Your task to perform on an android device: Clear the shopping cart on bestbuy.com. Add logitech g910 to the cart on bestbuy.com, then select checkout. Image 0: 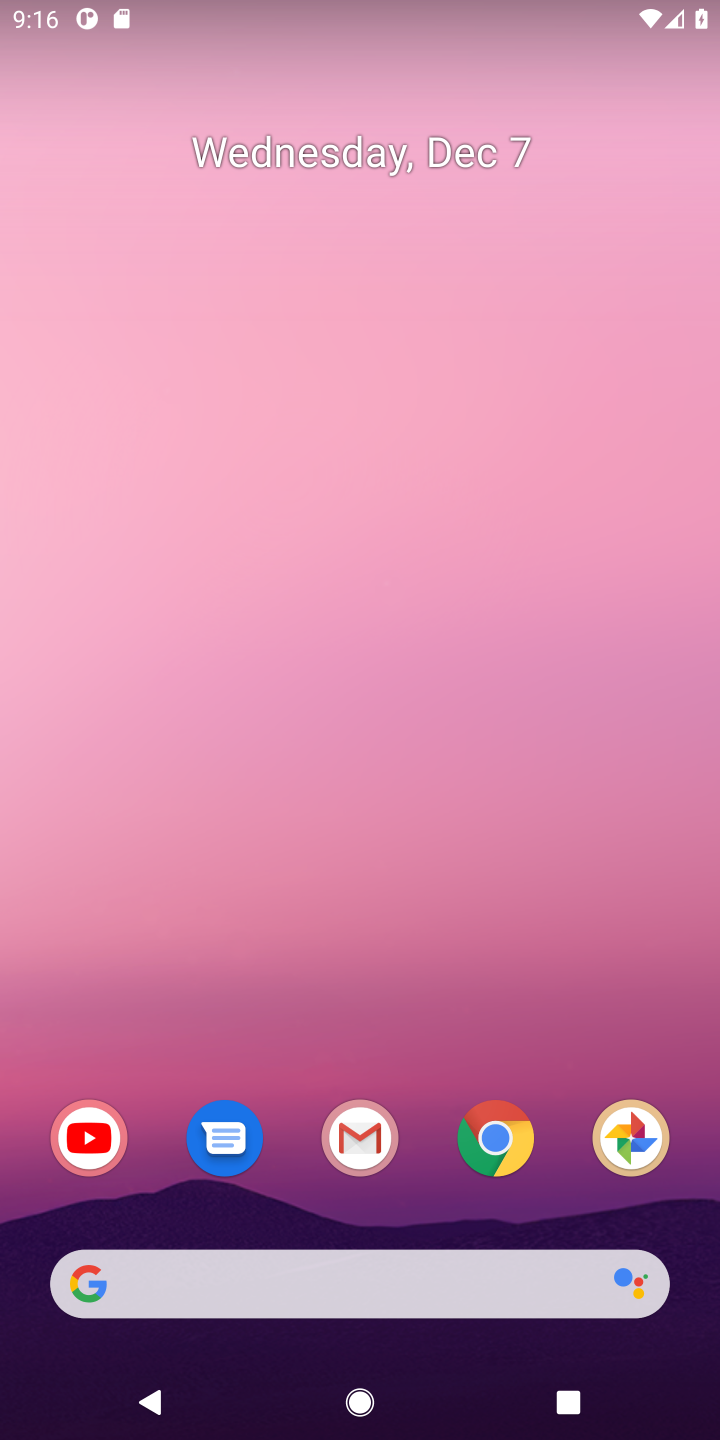
Step 0: press home button
Your task to perform on an android device: Clear the shopping cart on bestbuy.com. Add logitech g910 to the cart on bestbuy.com, then select checkout. Image 1: 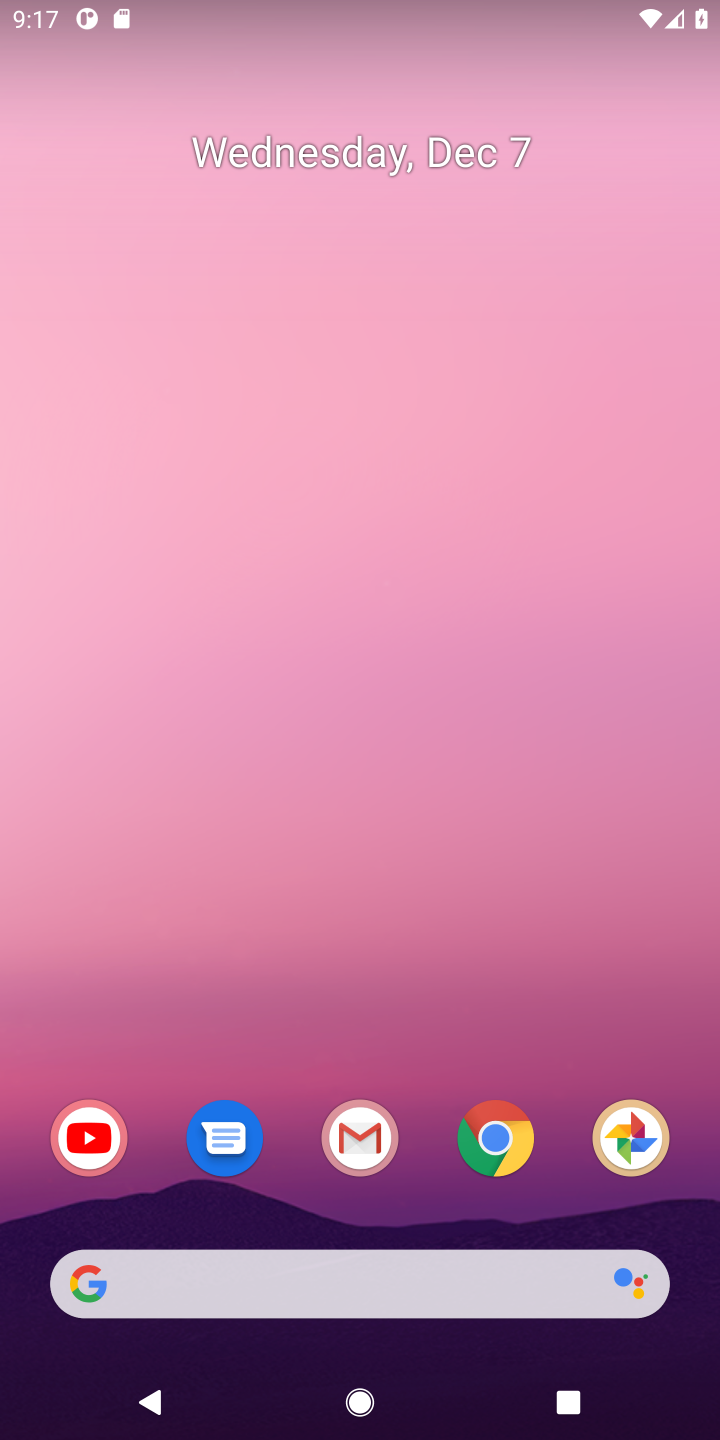
Step 1: click (139, 1278)
Your task to perform on an android device: Clear the shopping cart on bestbuy.com. Add logitech g910 to the cart on bestbuy.com, then select checkout. Image 2: 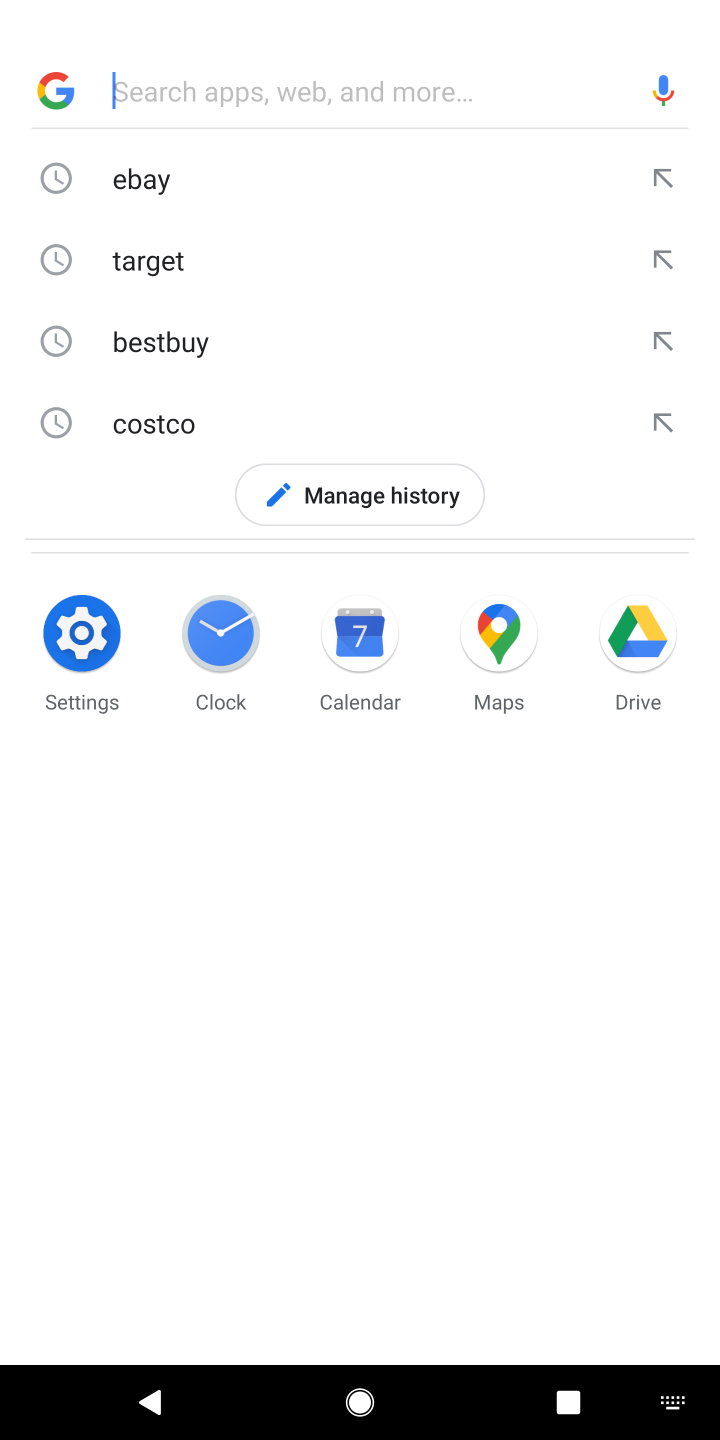
Step 2: type "bestbuy.com"
Your task to perform on an android device: Clear the shopping cart on bestbuy.com. Add logitech g910 to the cart on bestbuy.com, then select checkout. Image 3: 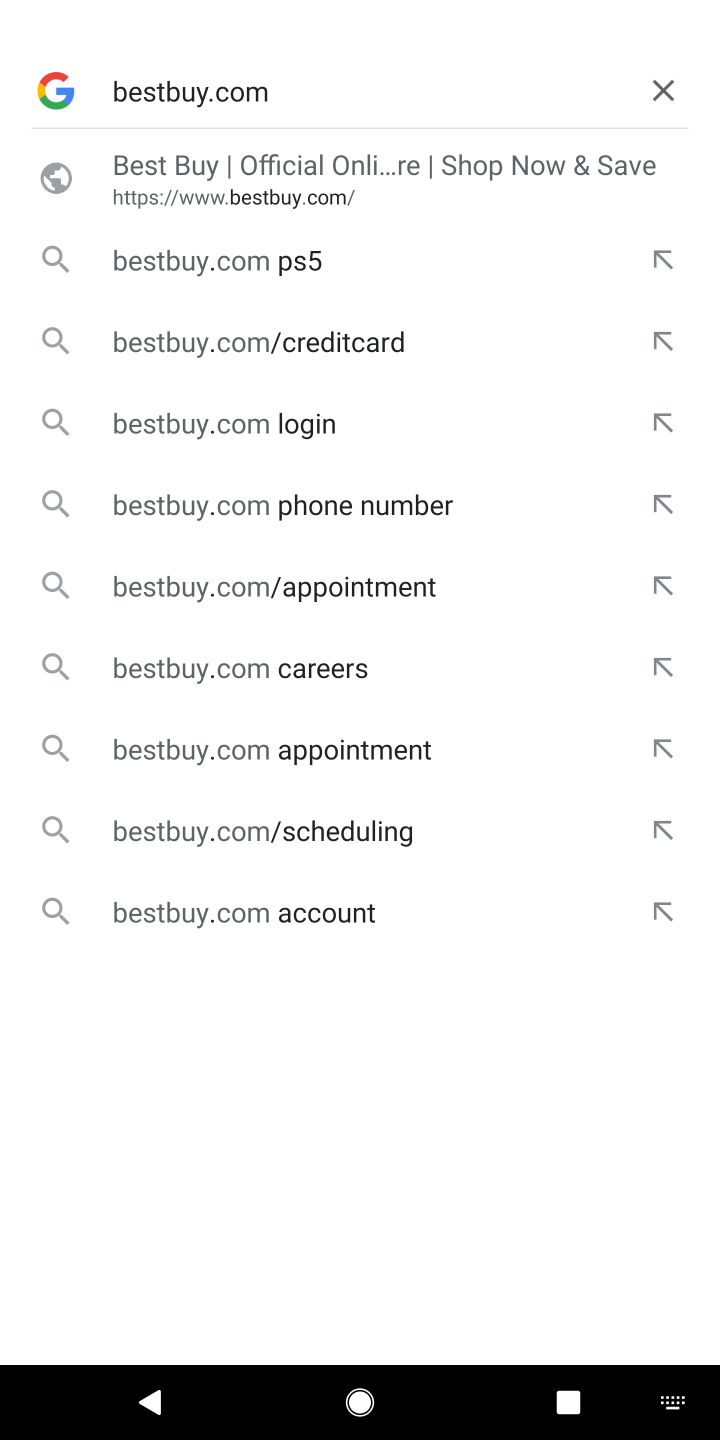
Step 3: press enter
Your task to perform on an android device: Clear the shopping cart on bestbuy.com. Add logitech g910 to the cart on bestbuy.com, then select checkout. Image 4: 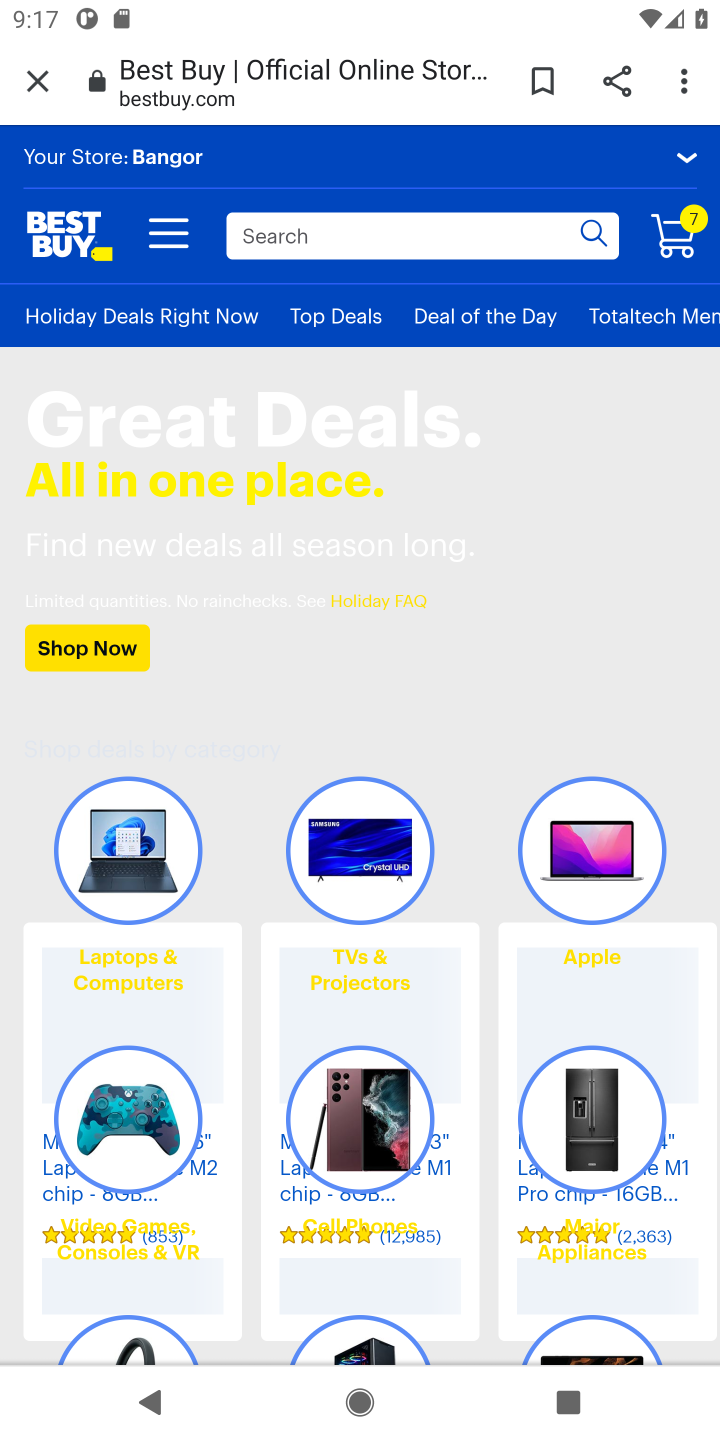
Step 4: click (677, 238)
Your task to perform on an android device: Clear the shopping cart on bestbuy.com. Add logitech g910 to the cart on bestbuy.com, then select checkout. Image 5: 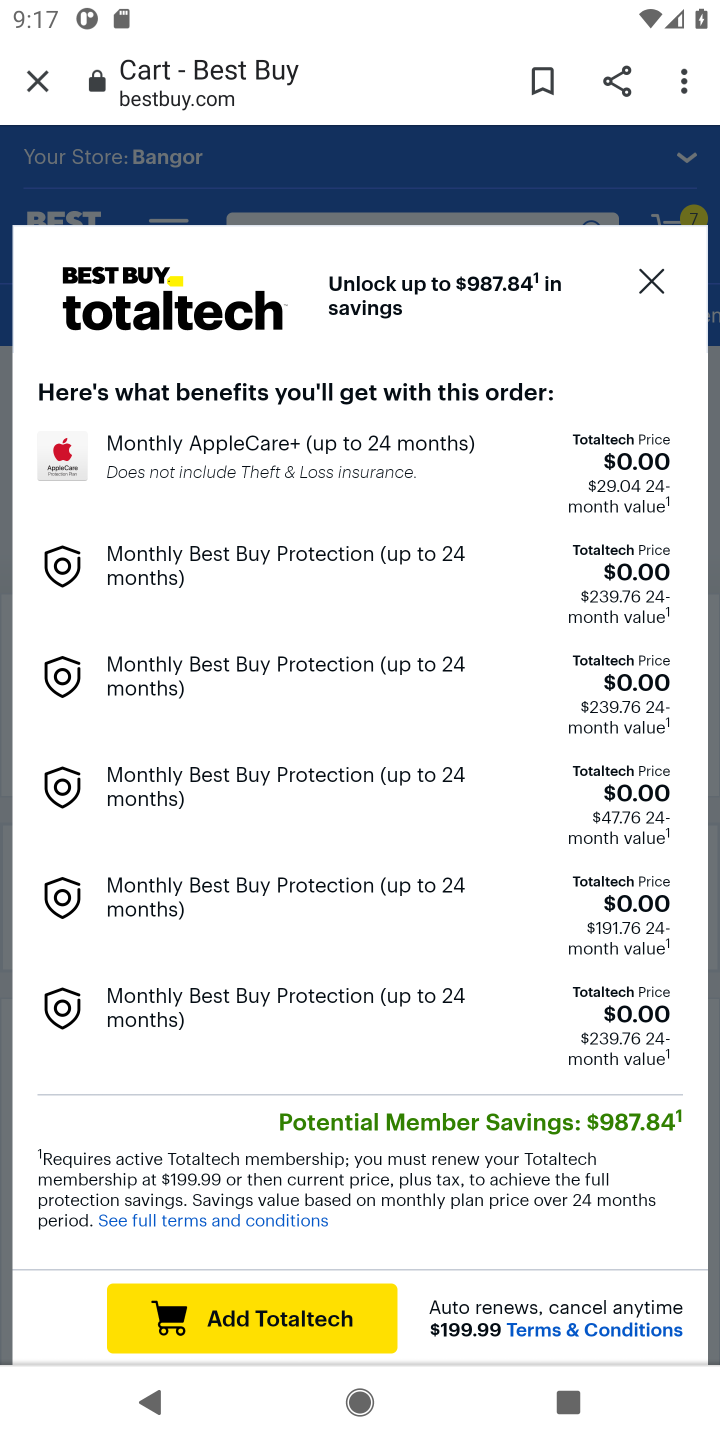
Step 5: click (644, 276)
Your task to perform on an android device: Clear the shopping cart on bestbuy.com. Add logitech g910 to the cart on bestbuy.com, then select checkout. Image 6: 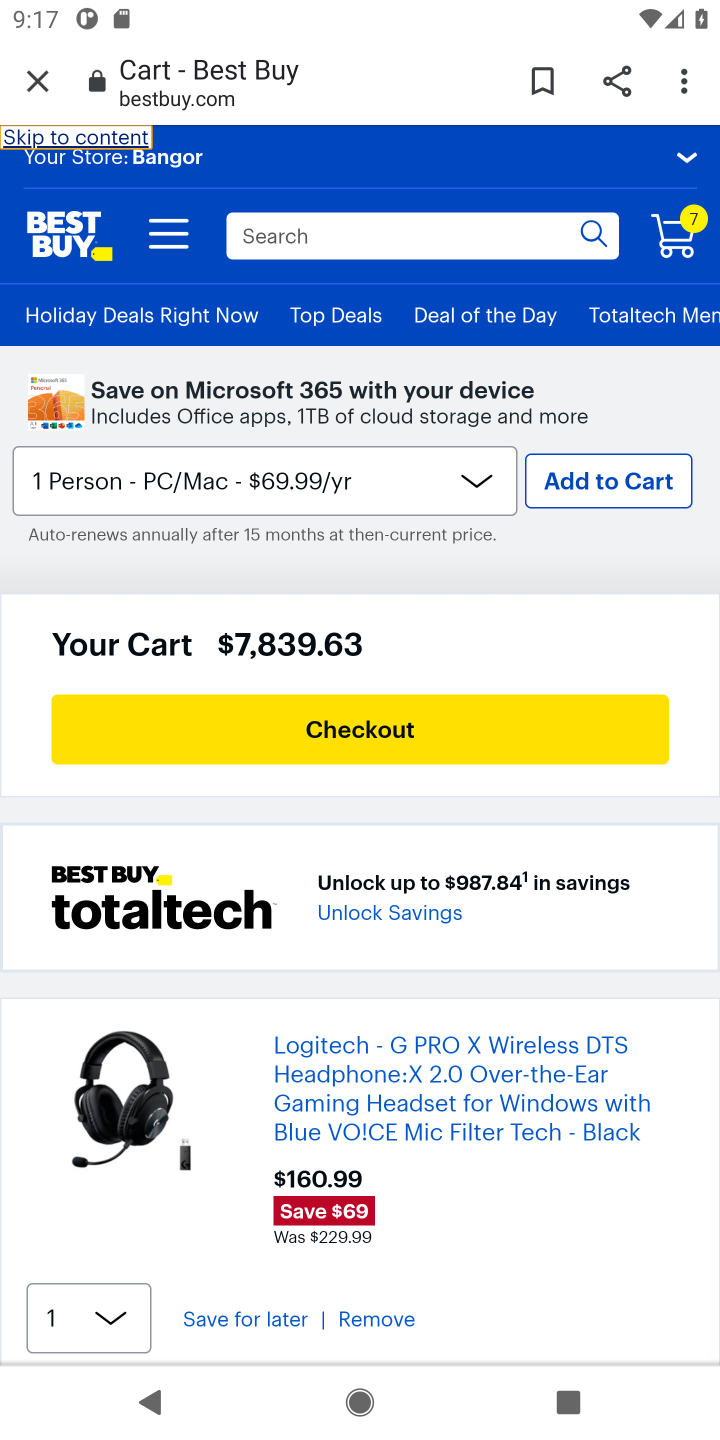
Step 6: click (369, 1311)
Your task to perform on an android device: Clear the shopping cart on bestbuy.com. Add logitech g910 to the cart on bestbuy.com, then select checkout. Image 7: 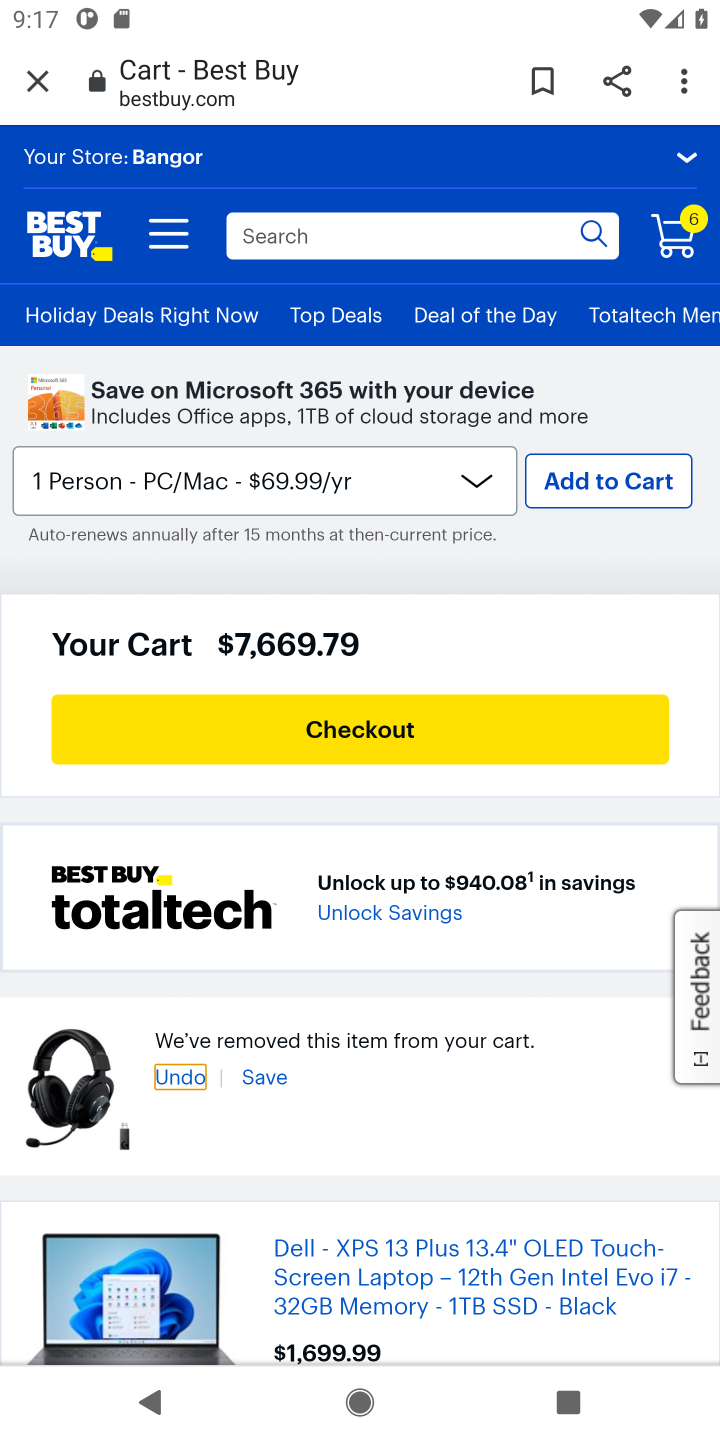
Step 7: drag from (383, 1161) to (474, 554)
Your task to perform on an android device: Clear the shopping cart on bestbuy.com. Add logitech g910 to the cart on bestbuy.com, then select checkout. Image 8: 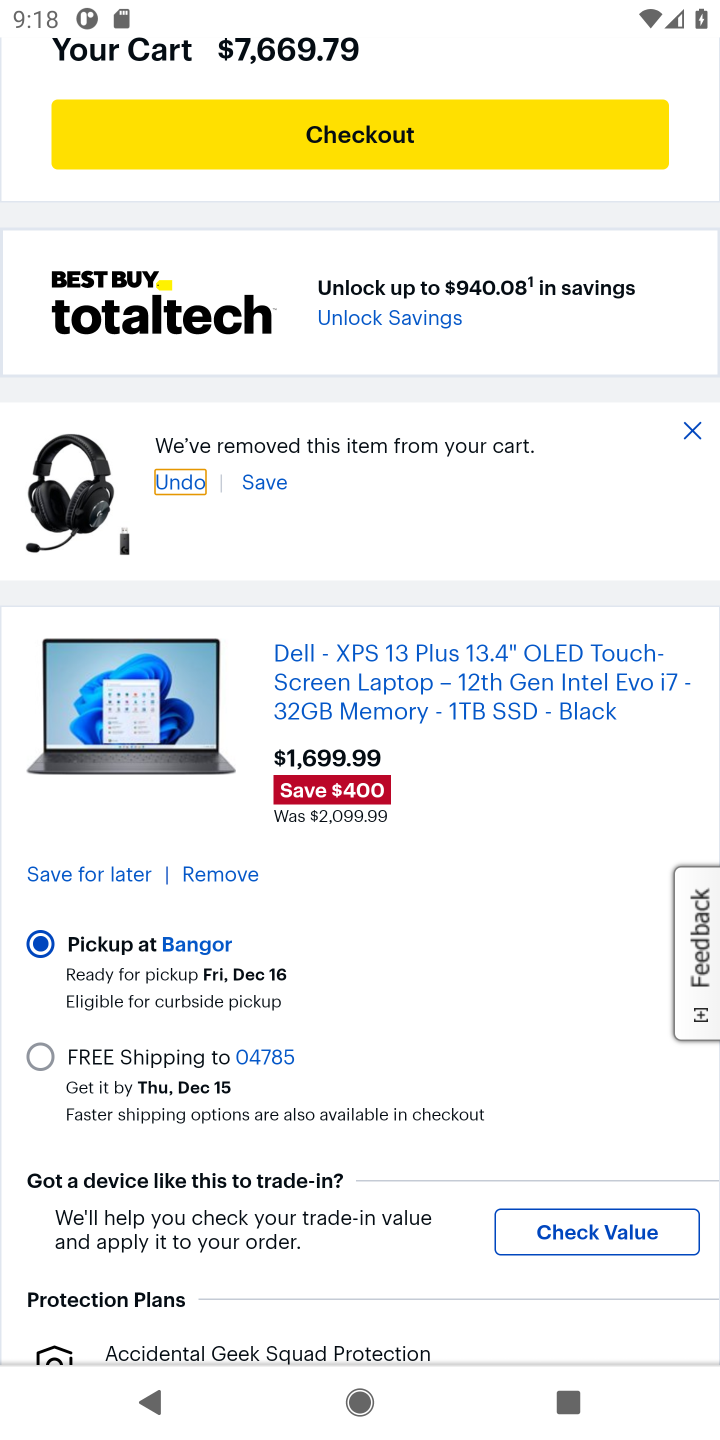
Step 8: drag from (330, 1205) to (419, 555)
Your task to perform on an android device: Clear the shopping cart on bestbuy.com. Add logitech g910 to the cart on bestbuy.com, then select checkout. Image 9: 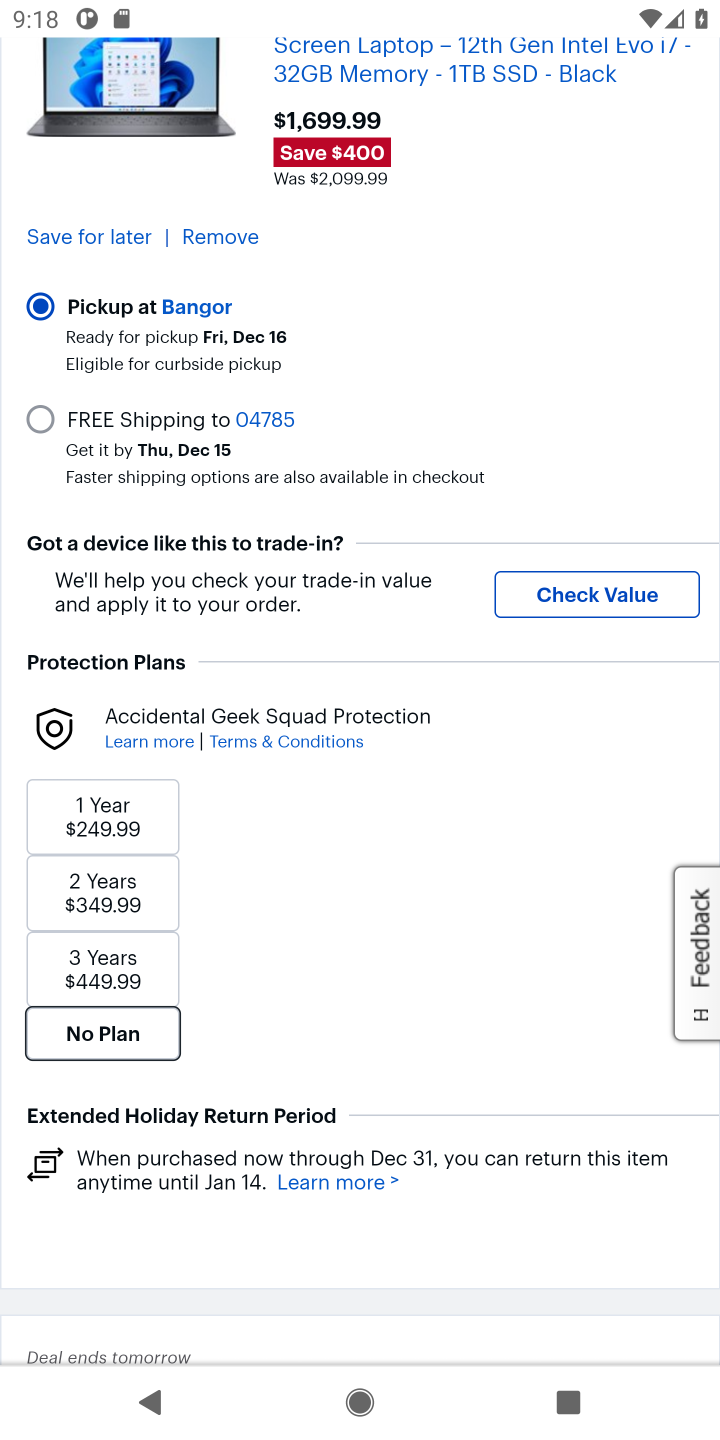
Step 9: drag from (338, 826) to (422, 245)
Your task to perform on an android device: Clear the shopping cart on bestbuy.com. Add logitech g910 to the cart on bestbuy.com, then select checkout. Image 10: 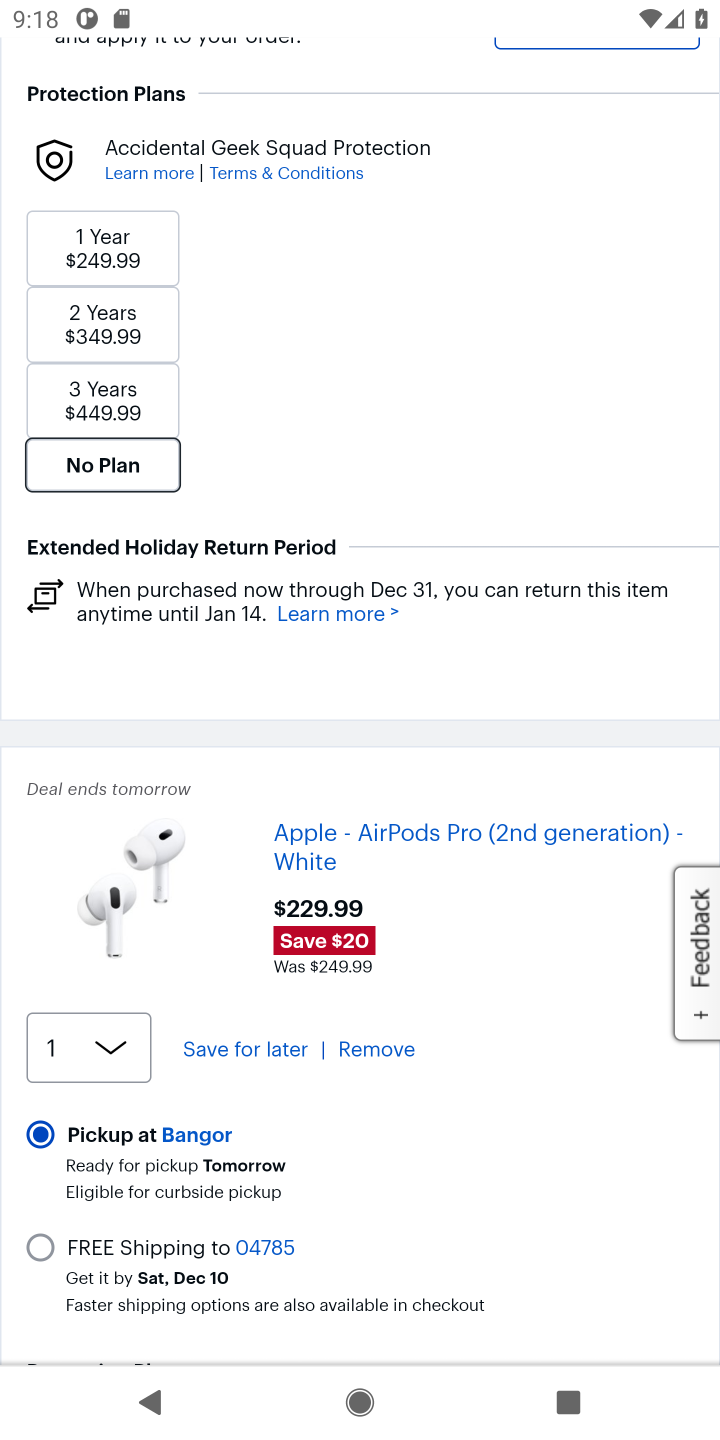
Step 10: click (368, 1042)
Your task to perform on an android device: Clear the shopping cart on bestbuy.com. Add logitech g910 to the cart on bestbuy.com, then select checkout. Image 11: 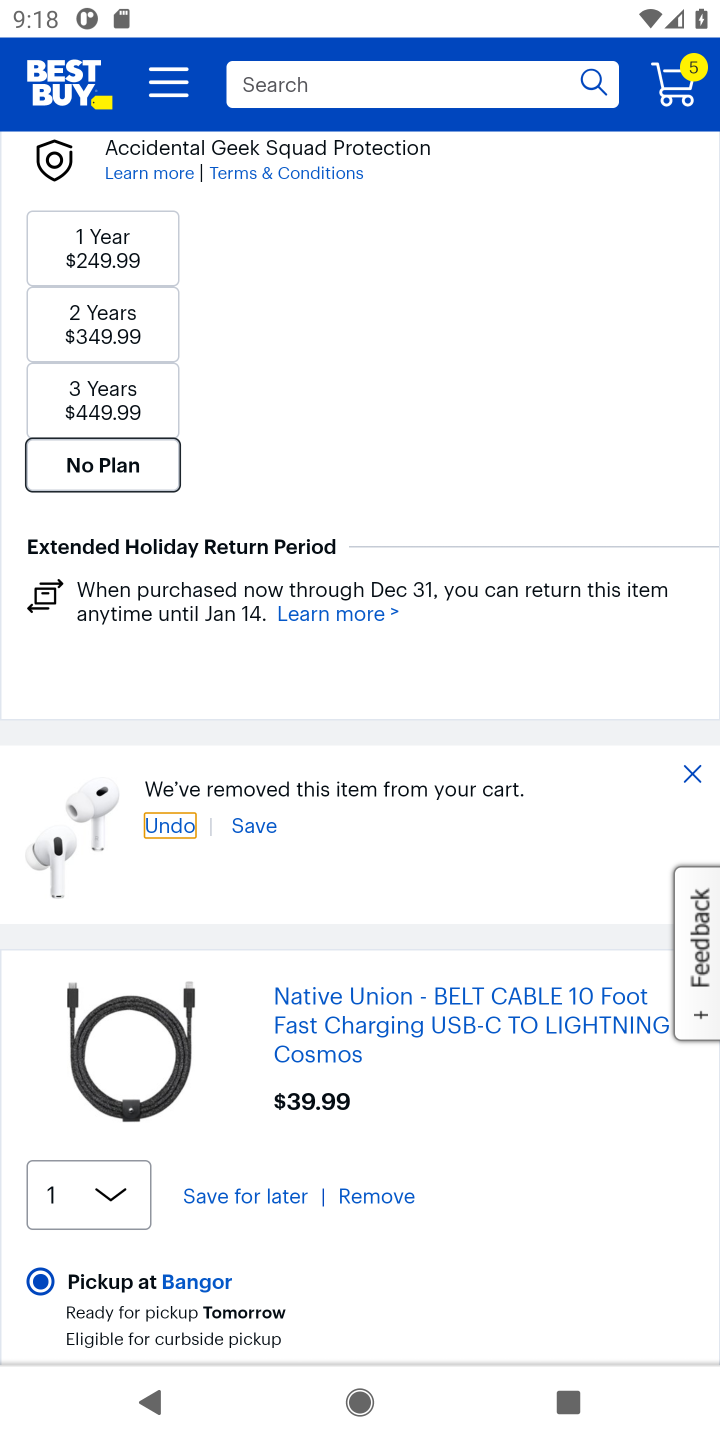
Step 11: click (365, 1197)
Your task to perform on an android device: Clear the shopping cart on bestbuy.com. Add logitech g910 to the cart on bestbuy.com, then select checkout. Image 12: 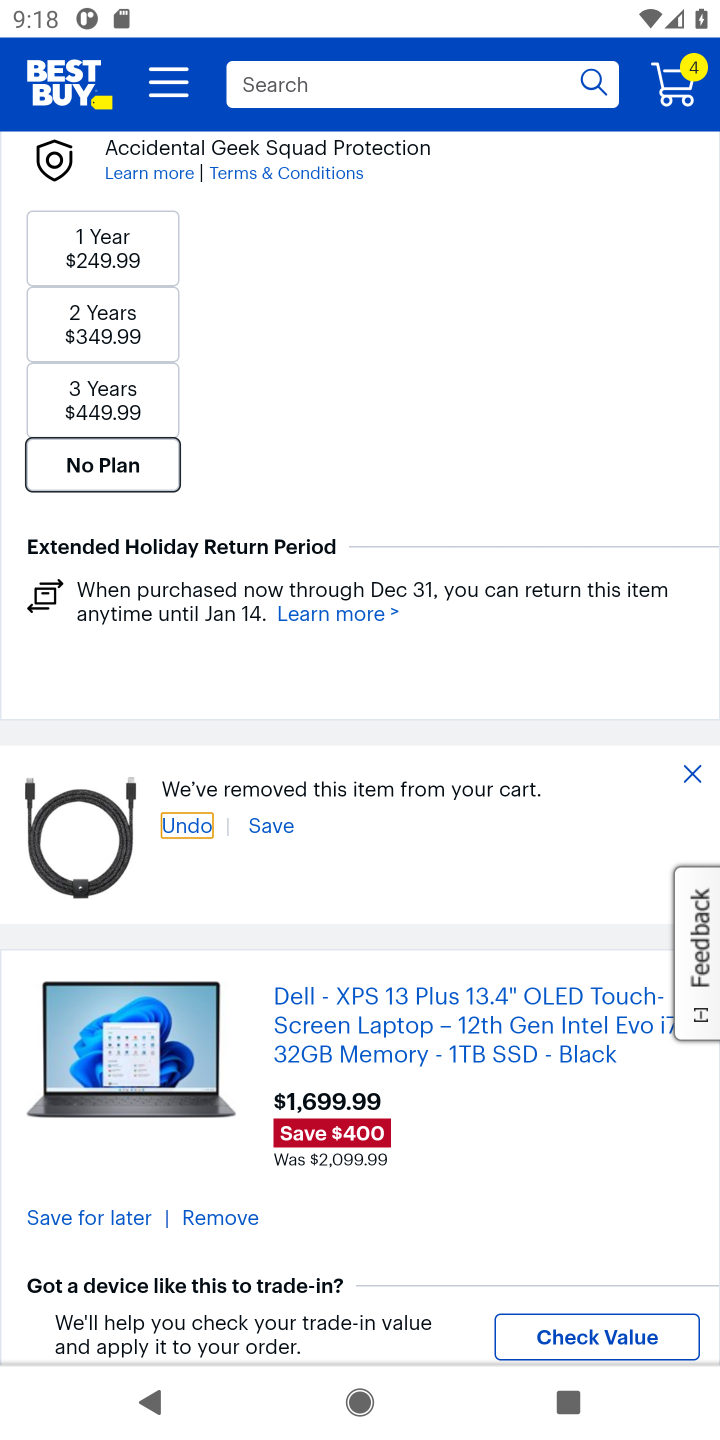
Step 12: drag from (429, 1252) to (431, 390)
Your task to perform on an android device: Clear the shopping cart on bestbuy.com. Add logitech g910 to the cart on bestbuy.com, then select checkout. Image 13: 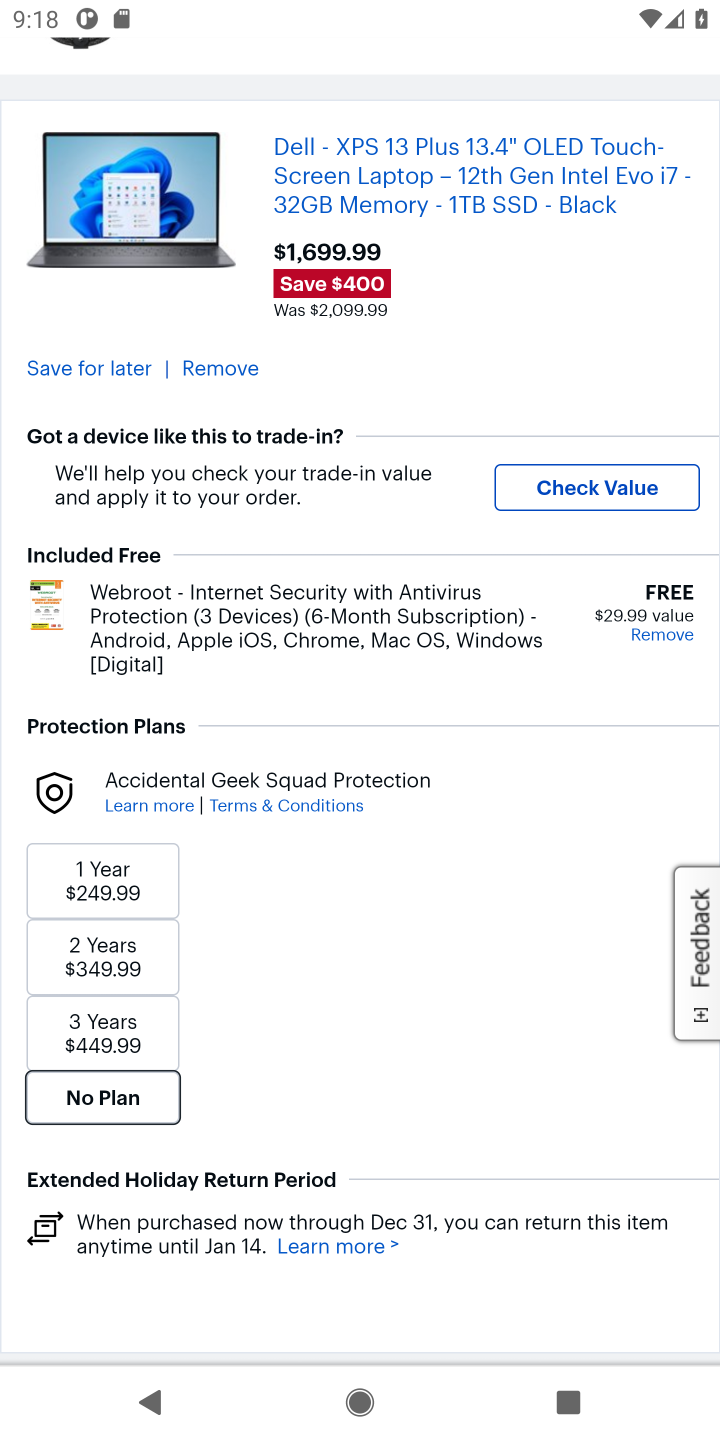
Step 13: drag from (289, 1244) to (387, 401)
Your task to perform on an android device: Clear the shopping cart on bestbuy.com. Add logitech g910 to the cart on bestbuy.com, then select checkout. Image 14: 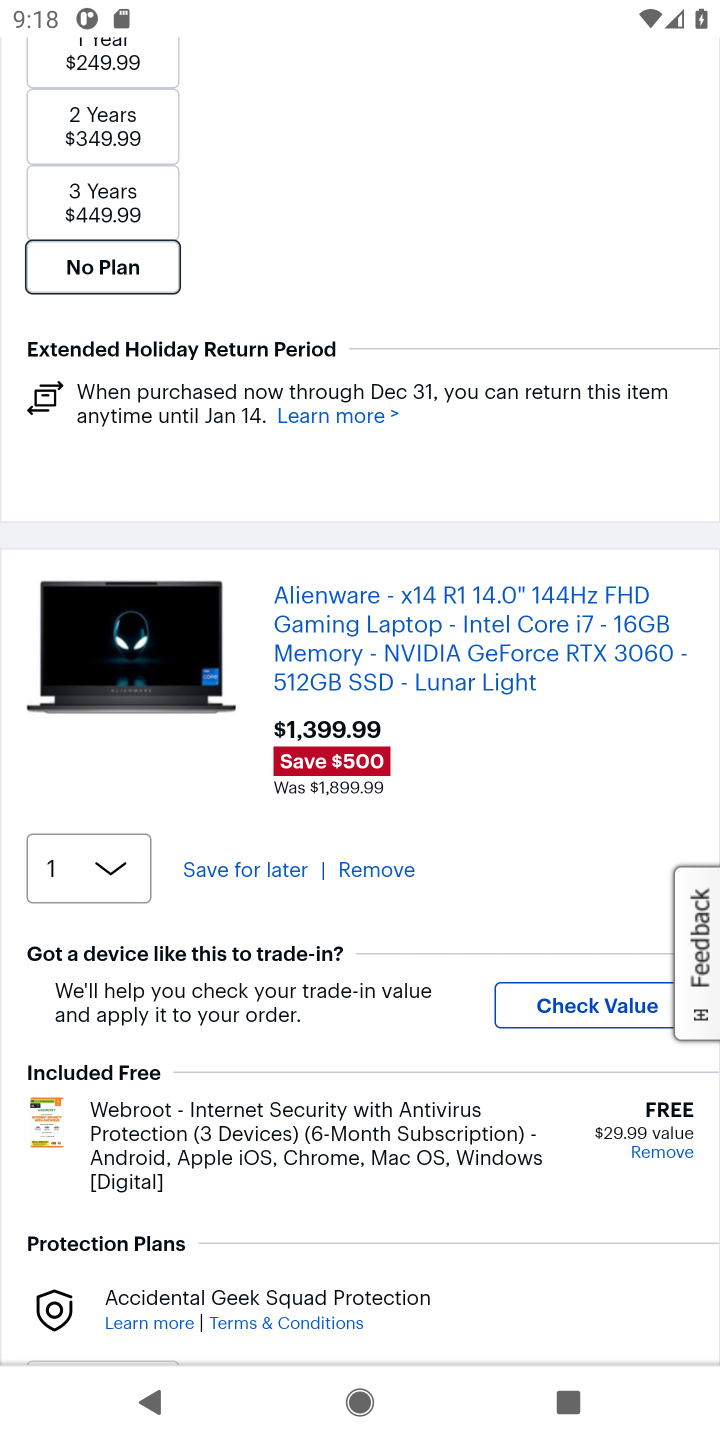
Step 14: click (369, 862)
Your task to perform on an android device: Clear the shopping cart on bestbuy.com. Add logitech g910 to the cart on bestbuy.com, then select checkout. Image 15: 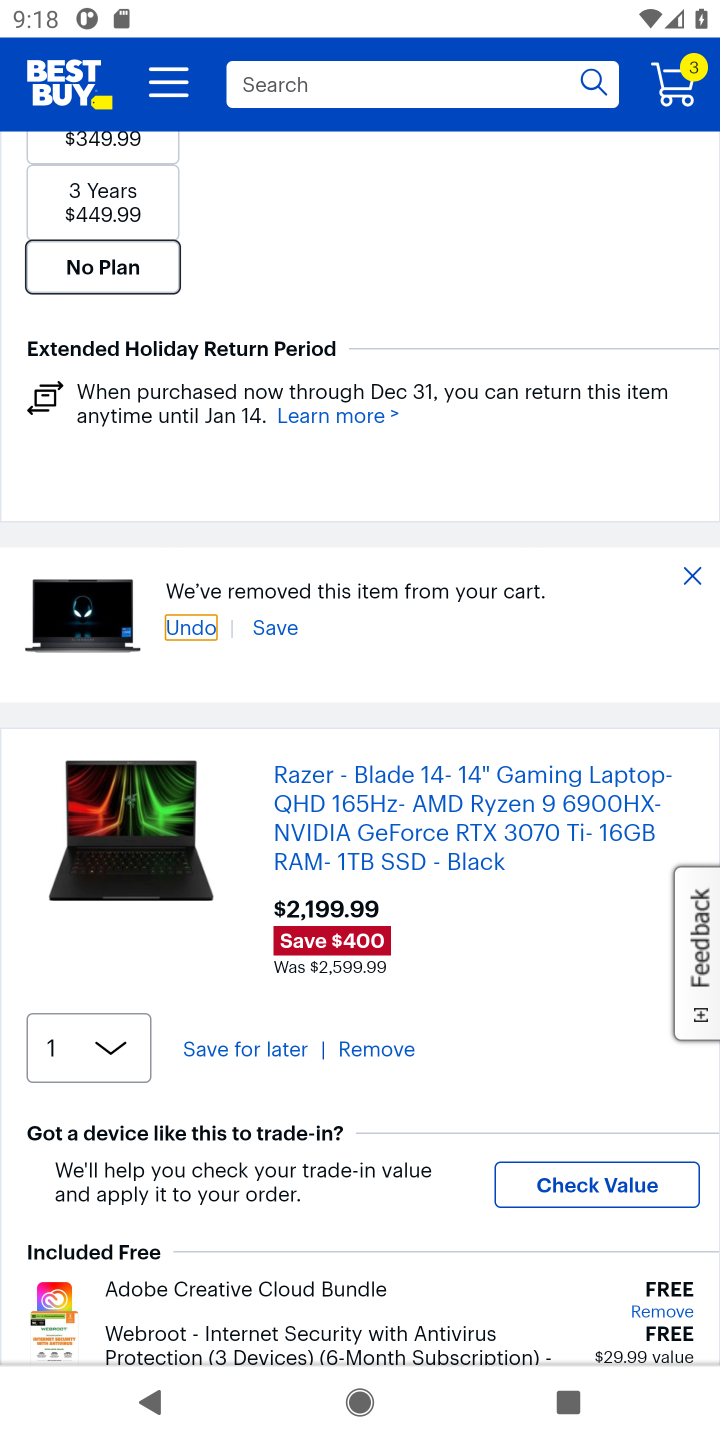
Step 15: click (345, 1044)
Your task to perform on an android device: Clear the shopping cart on bestbuy.com. Add logitech g910 to the cart on bestbuy.com, then select checkout. Image 16: 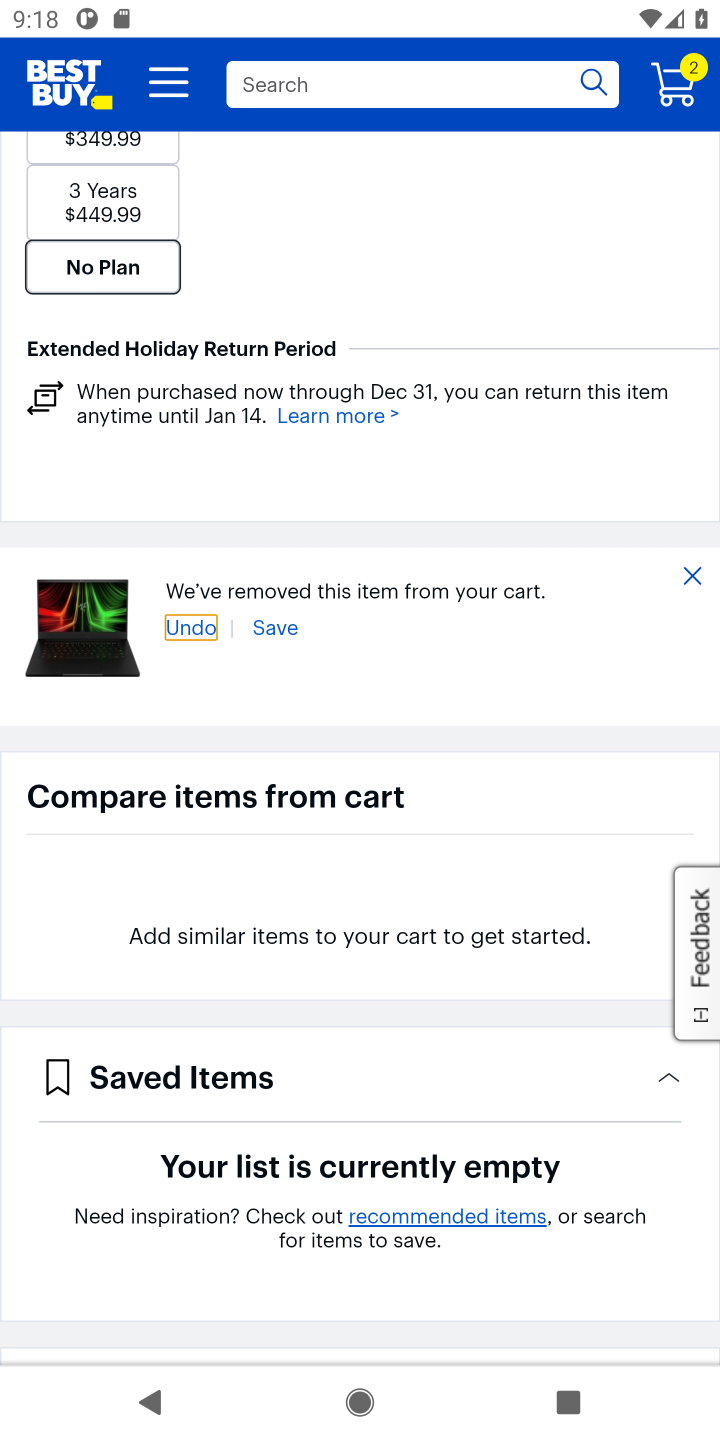
Step 16: click (270, 80)
Your task to perform on an android device: Clear the shopping cart on bestbuy.com. Add logitech g910 to the cart on bestbuy.com, then select checkout. Image 17: 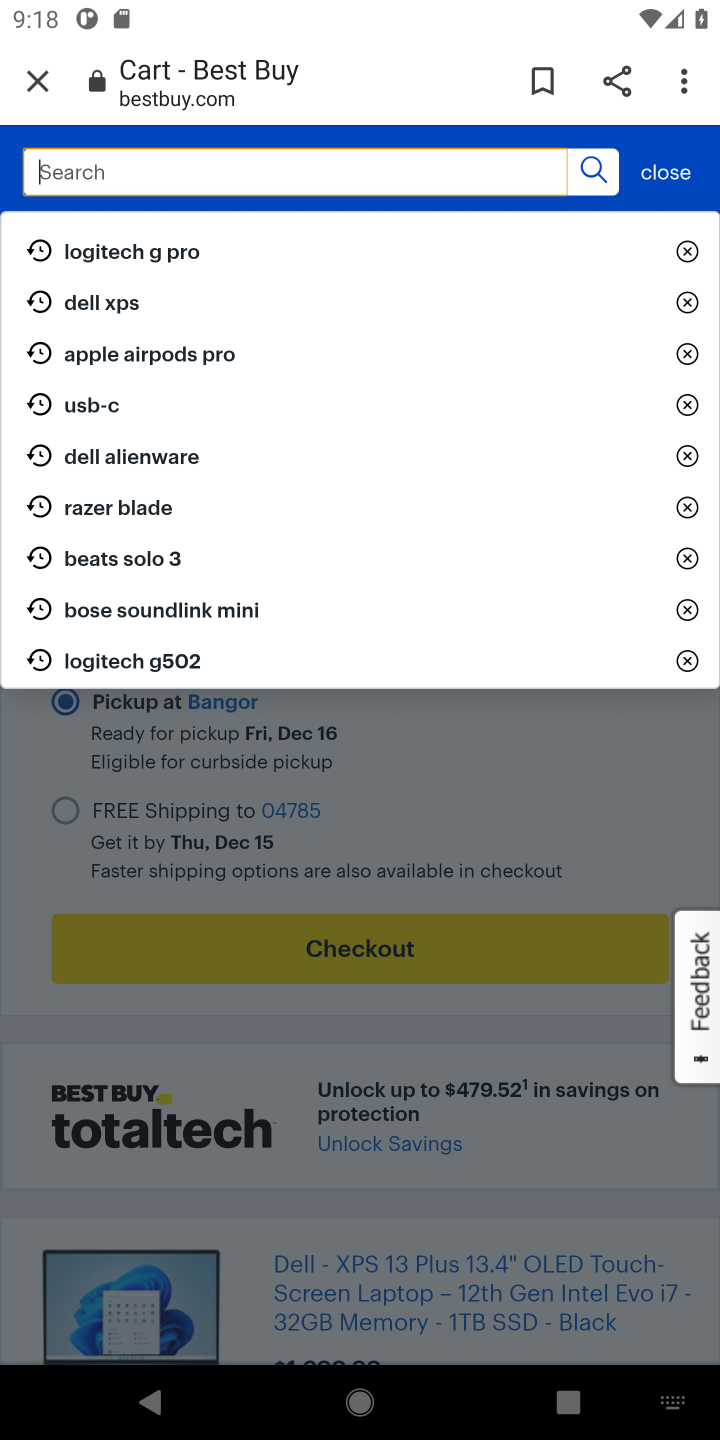
Step 17: press enter
Your task to perform on an android device: Clear the shopping cart on bestbuy.com. Add logitech g910 to the cart on bestbuy.com, then select checkout. Image 18: 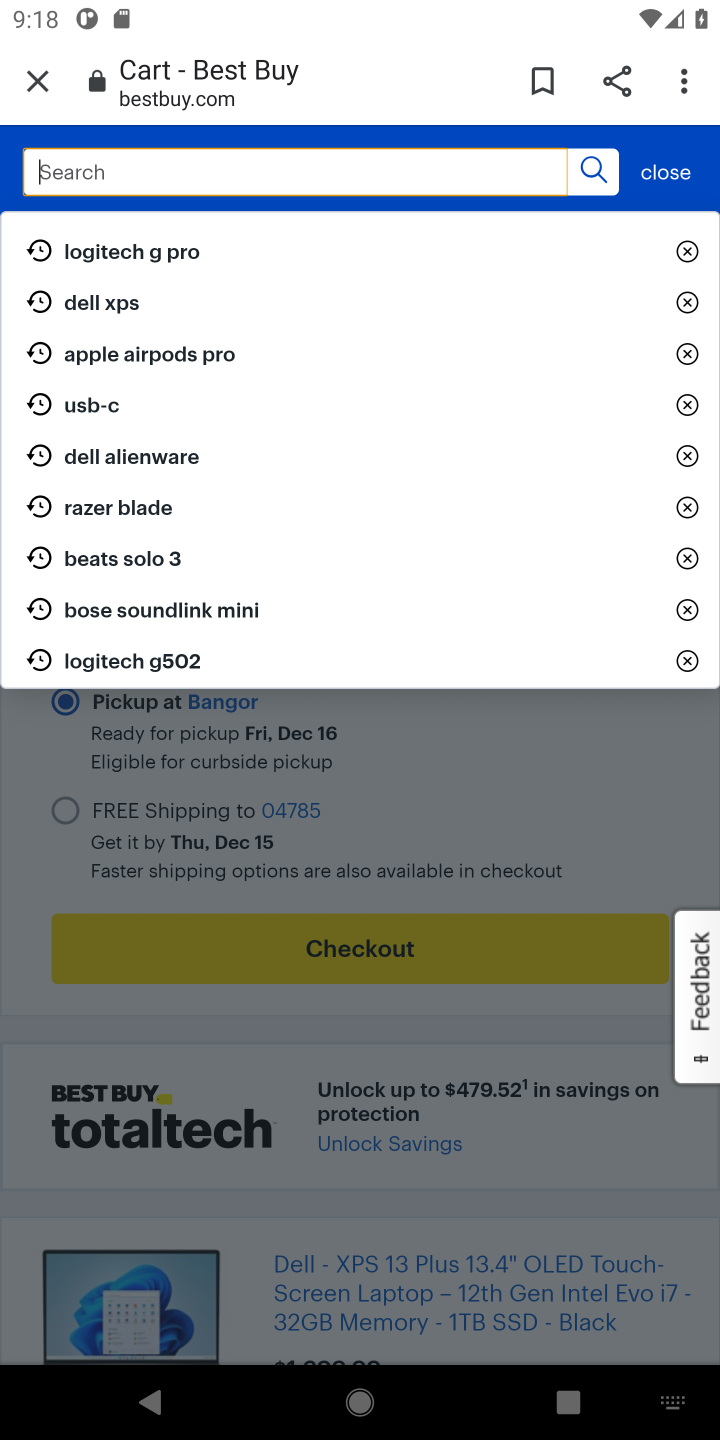
Step 18: type "logitech g910"
Your task to perform on an android device: Clear the shopping cart on bestbuy.com. Add logitech g910 to the cart on bestbuy.com, then select checkout. Image 19: 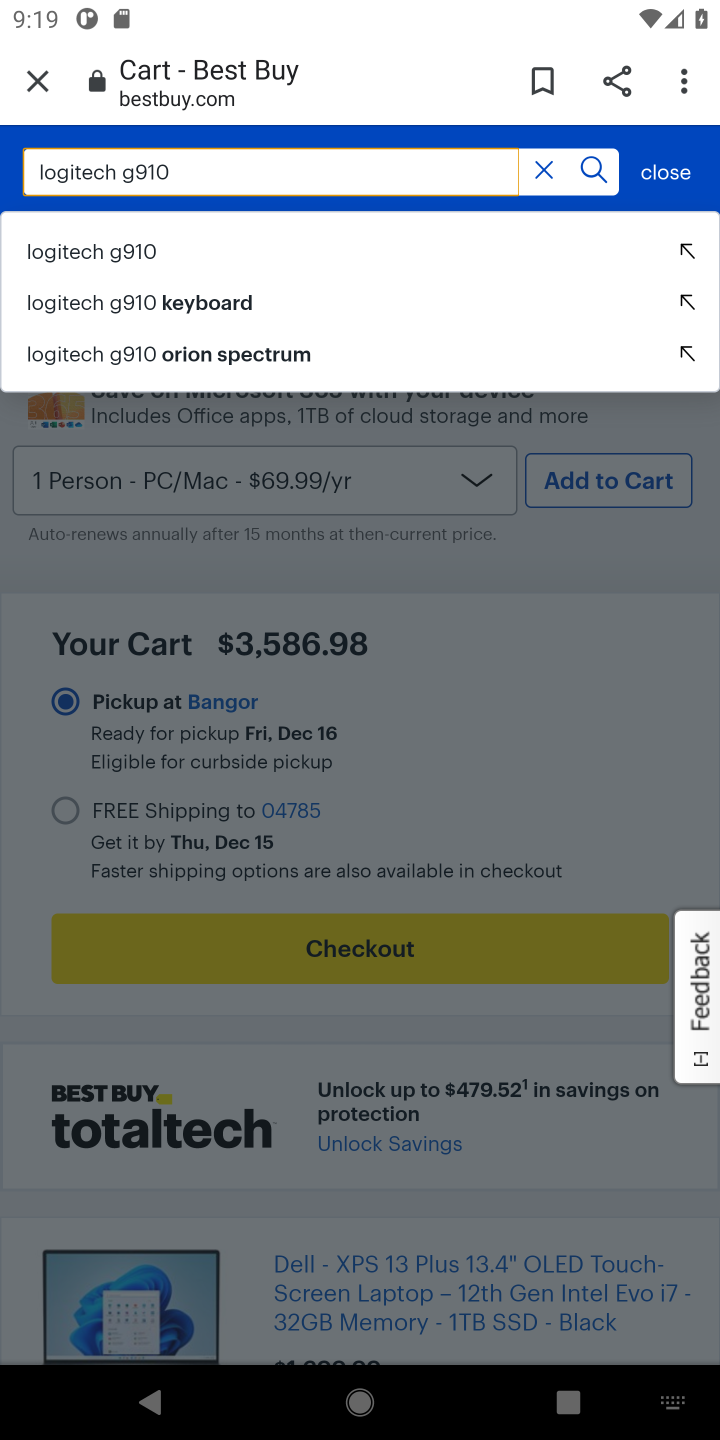
Step 19: press enter
Your task to perform on an android device: Clear the shopping cart on bestbuy.com. Add logitech g910 to the cart on bestbuy.com, then select checkout. Image 20: 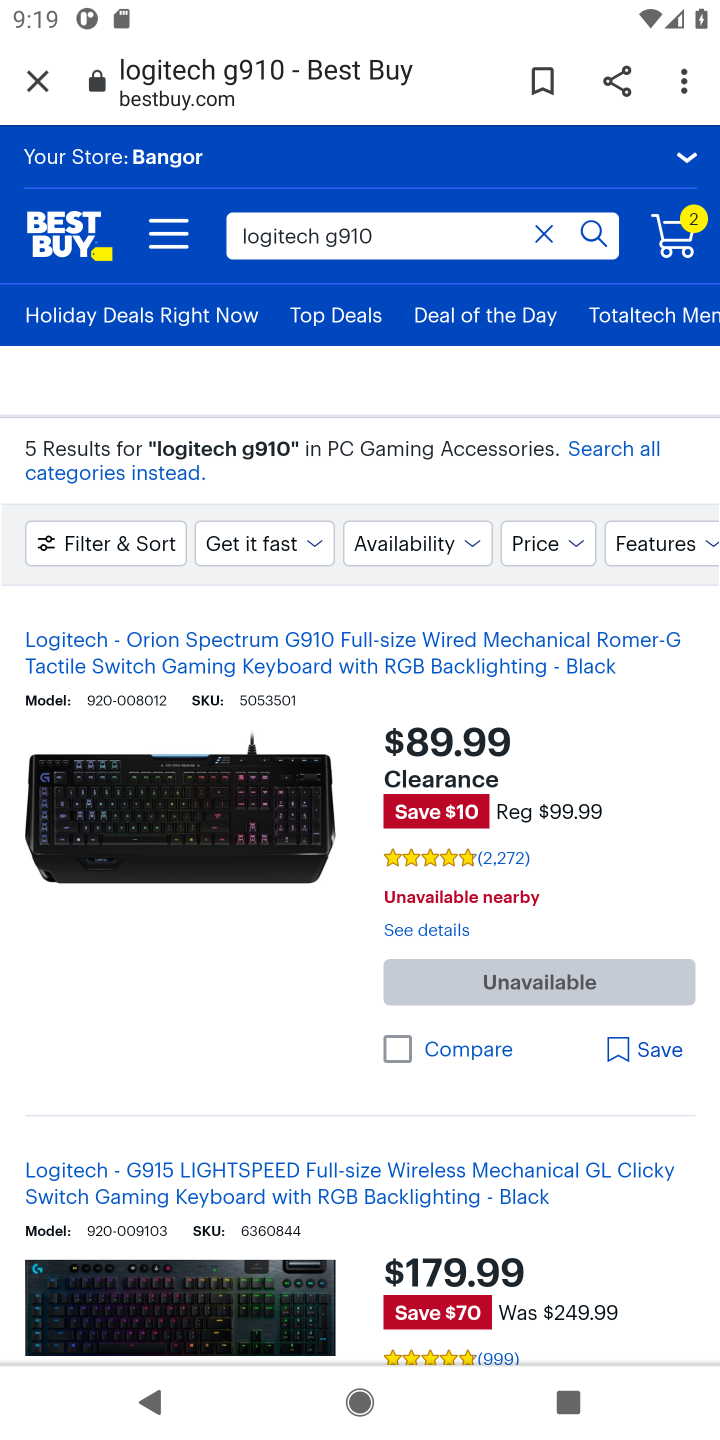
Step 20: task complete